Your task to perform on an android device: change the clock display to analog Image 0: 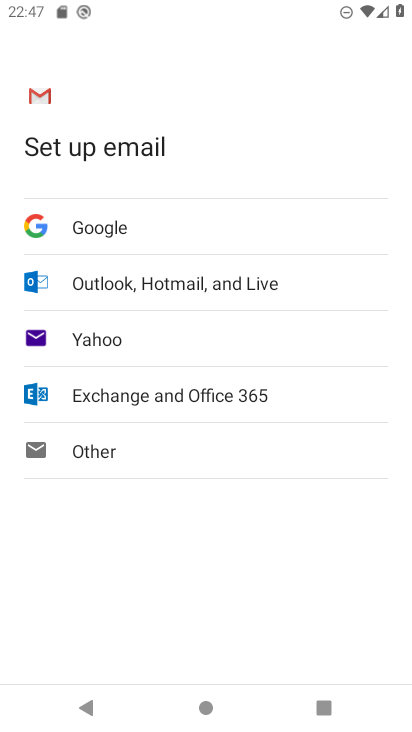
Step 0: press home button
Your task to perform on an android device: change the clock display to analog Image 1: 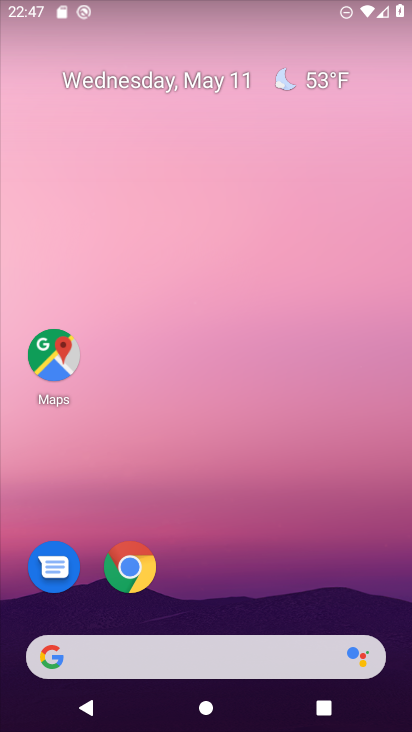
Step 1: drag from (248, 706) to (240, 73)
Your task to perform on an android device: change the clock display to analog Image 2: 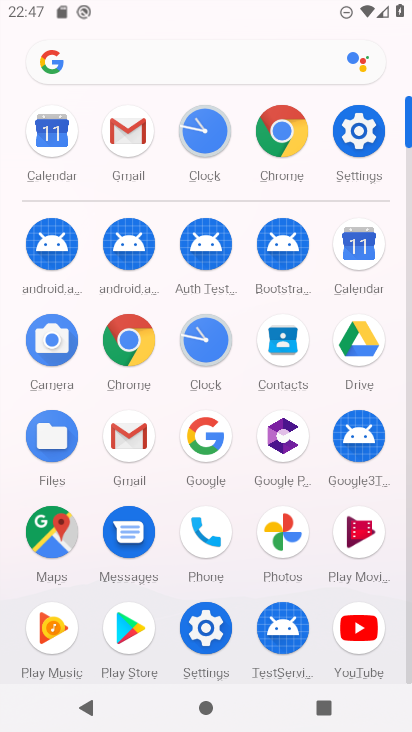
Step 2: click (212, 346)
Your task to perform on an android device: change the clock display to analog Image 3: 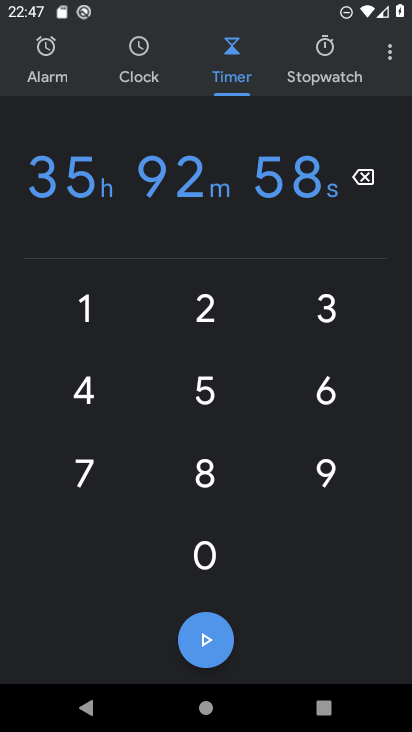
Step 3: click (389, 68)
Your task to perform on an android device: change the clock display to analog Image 4: 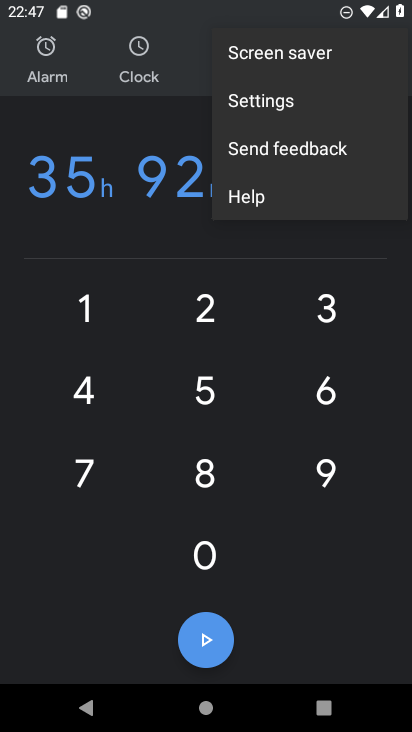
Step 4: click (296, 106)
Your task to perform on an android device: change the clock display to analog Image 5: 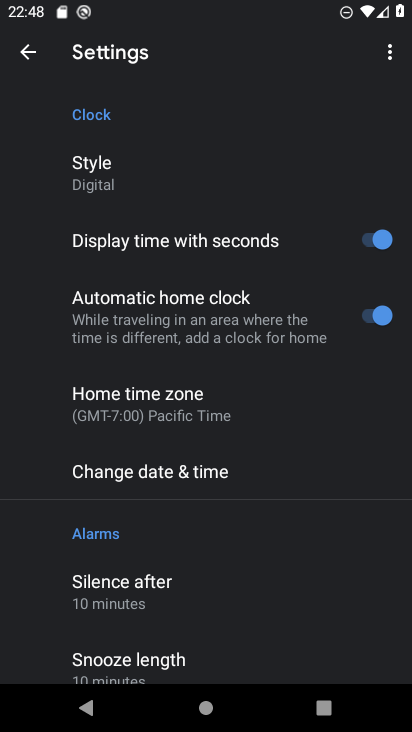
Step 5: click (189, 187)
Your task to perform on an android device: change the clock display to analog Image 6: 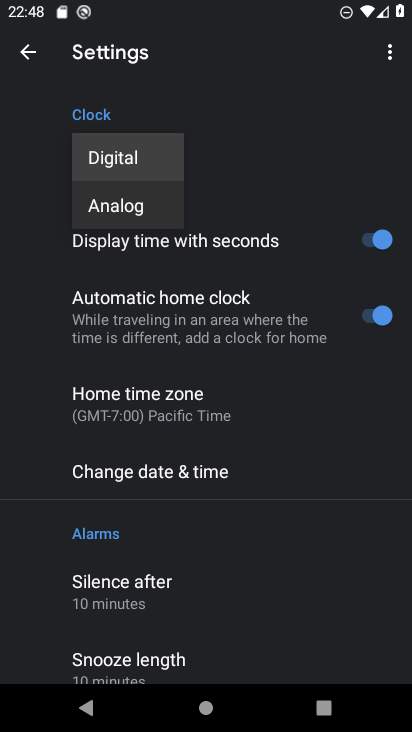
Step 6: click (144, 213)
Your task to perform on an android device: change the clock display to analog Image 7: 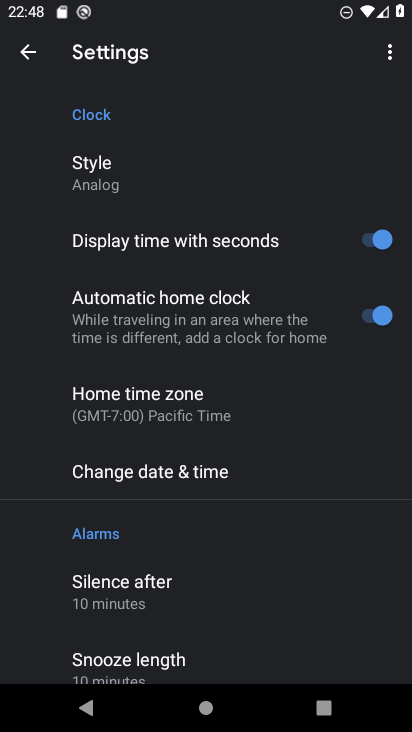
Step 7: task complete